Your task to perform on an android device: refresh tabs in the chrome app Image 0: 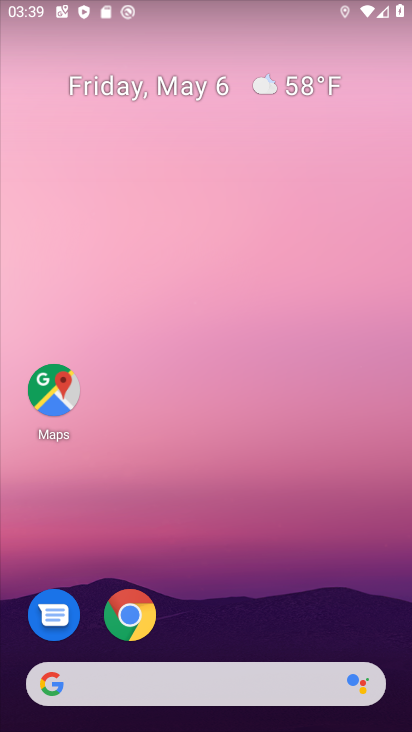
Step 0: drag from (323, 599) to (322, 169)
Your task to perform on an android device: refresh tabs in the chrome app Image 1: 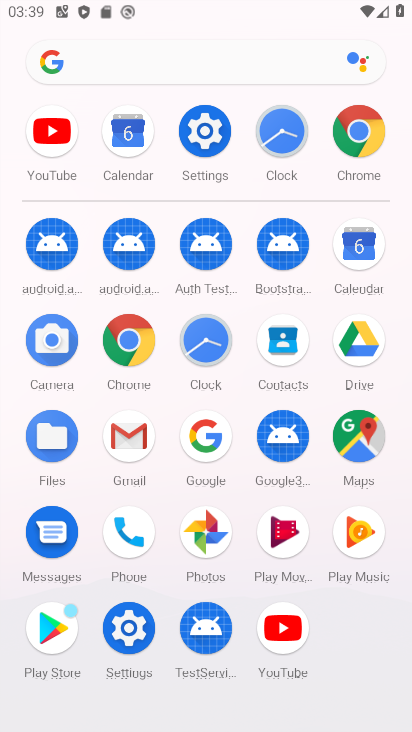
Step 1: click (366, 115)
Your task to perform on an android device: refresh tabs in the chrome app Image 2: 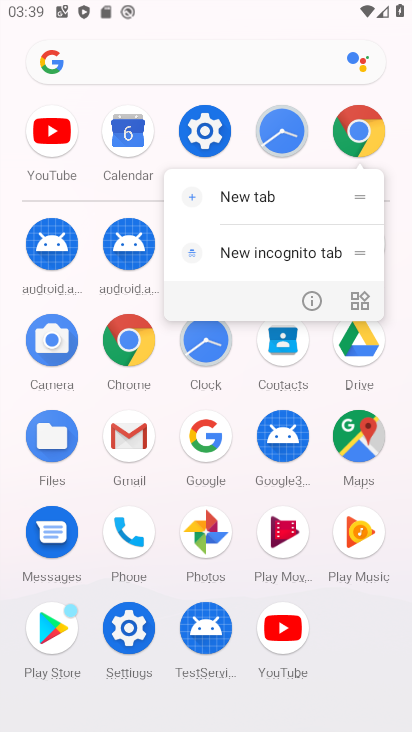
Step 2: click (367, 132)
Your task to perform on an android device: refresh tabs in the chrome app Image 3: 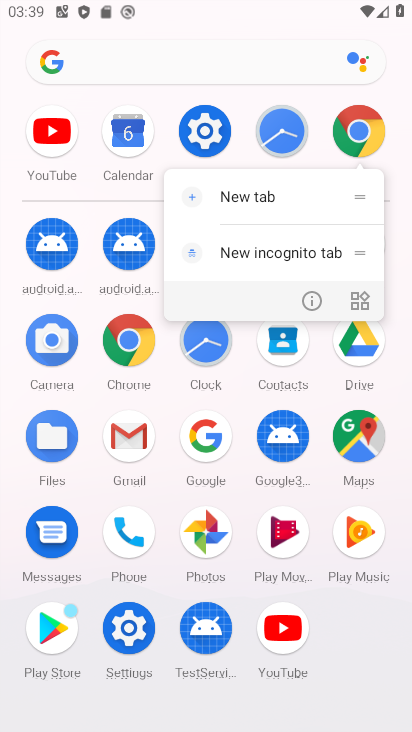
Step 3: click (367, 132)
Your task to perform on an android device: refresh tabs in the chrome app Image 4: 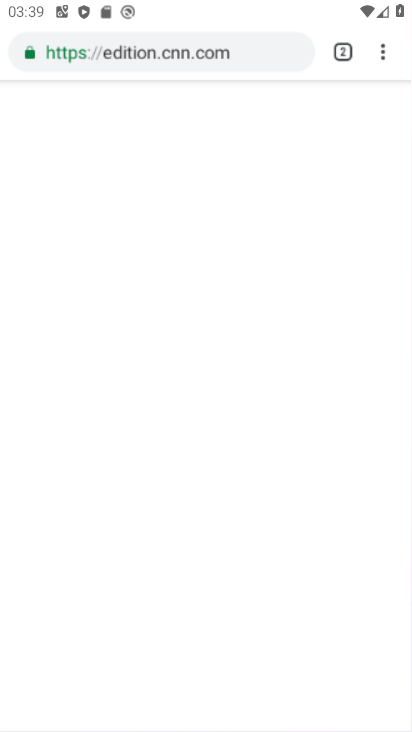
Step 4: click (361, 136)
Your task to perform on an android device: refresh tabs in the chrome app Image 5: 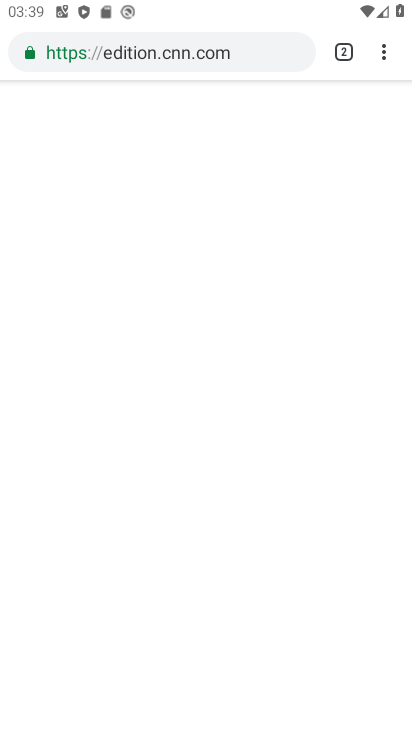
Step 5: click (381, 51)
Your task to perform on an android device: refresh tabs in the chrome app Image 6: 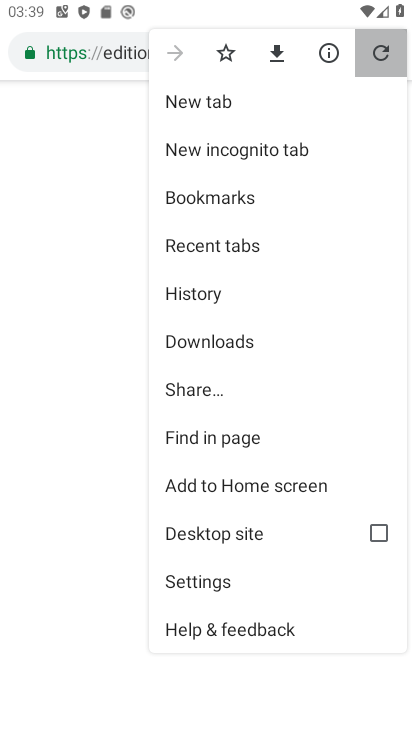
Step 6: click (379, 53)
Your task to perform on an android device: refresh tabs in the chrome app Image 7: 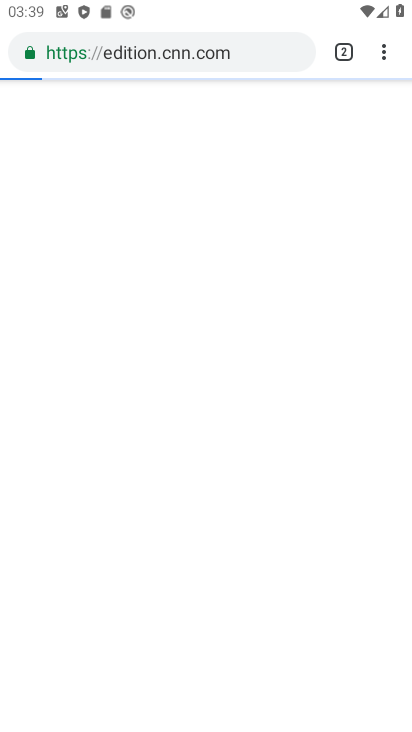
Step 7: click (379, 53)
Your task to perform on an android device: refresh tabs in the chrome app Image 8: 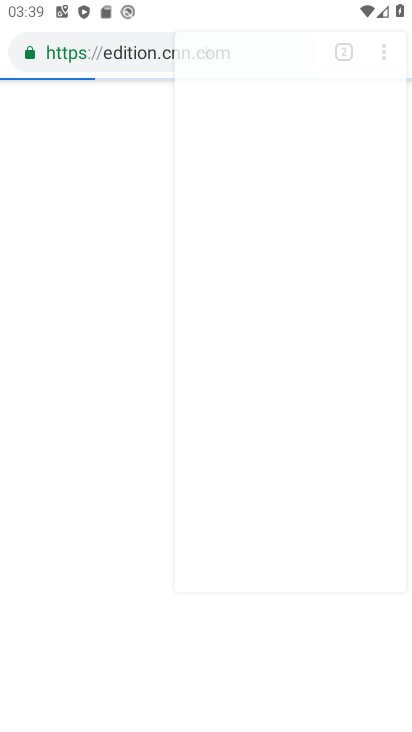
Step 8: click (379, 53)
Your task to perform on an android device: refresh tabs in the chrome app Image 9: 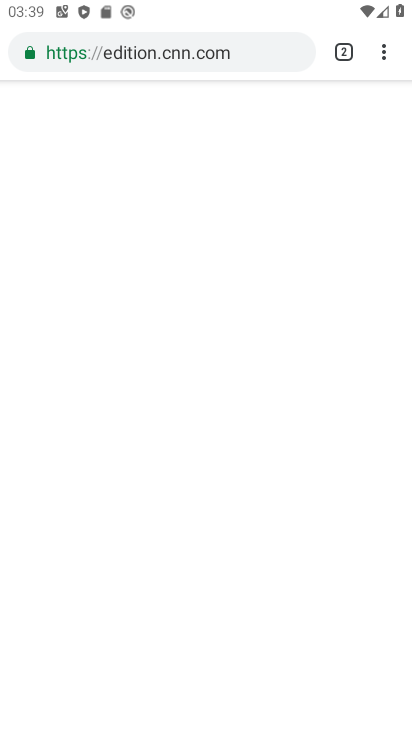
Step 9: task complete